Your task to perform on an android device: turn on notifications settings in the gmail app Image 0: 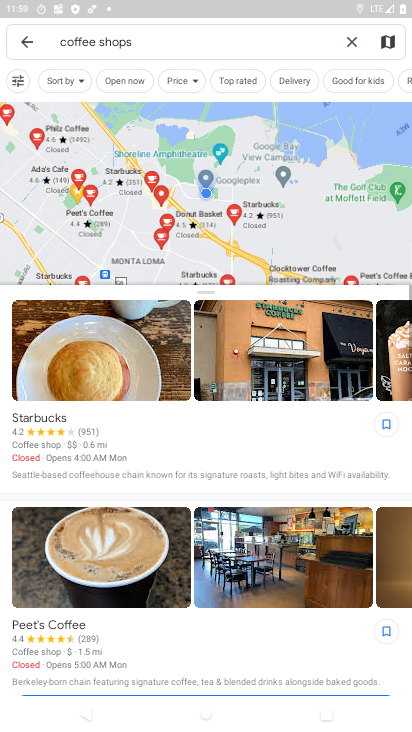
Step 0: press home button
Your task to perform on an android device: turn on notifications settings in the gmail app Image 1: 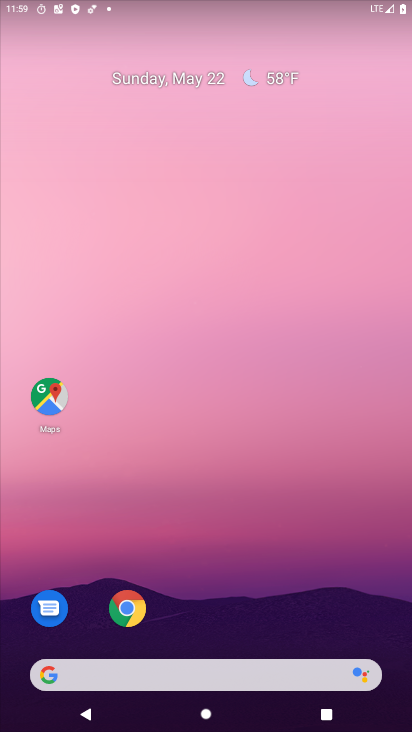
Step 1: drag from (247, 629) to (199, 51)
Your task to perform on an android device: turn on notifications settings in the gmail app Image 2: 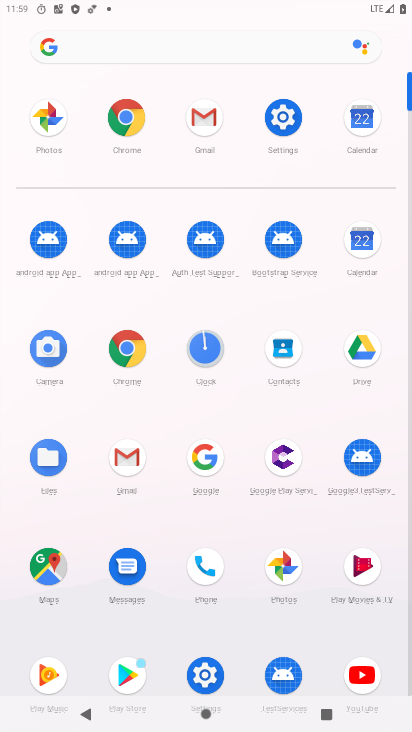
Step 2: click (200, 120)
Your task to perform on an android device: turn on notifications settings in the gmail app Image 3: 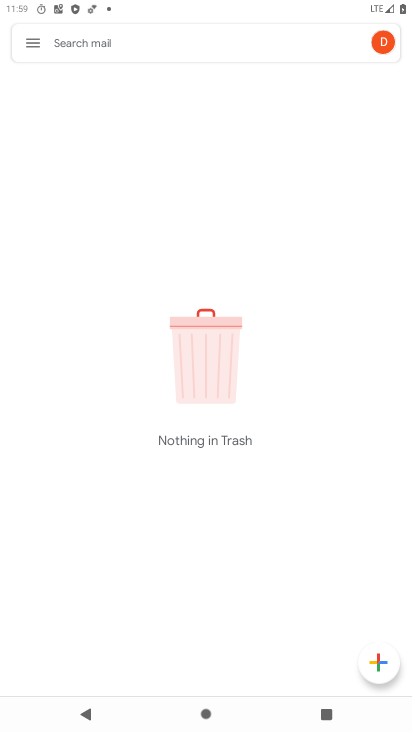
Step 3: click (43, 49)
Your task to perform on an android device: turn on notifications settings in the gmail app Image 4: 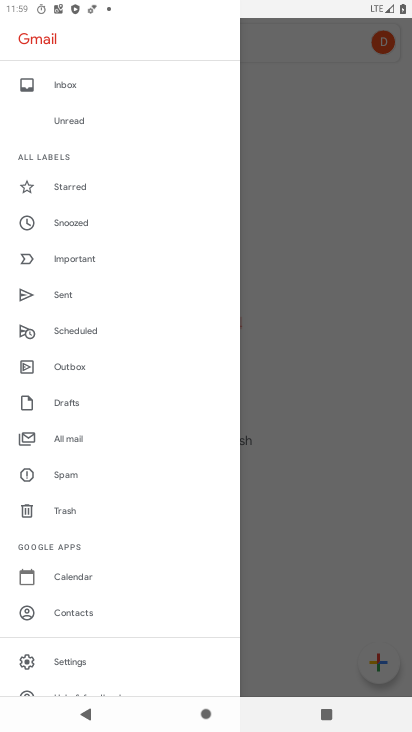
Step 4: click (183, 666)
Your task to perform on an android device: turn on notifications settings in the gmail app Image 5: 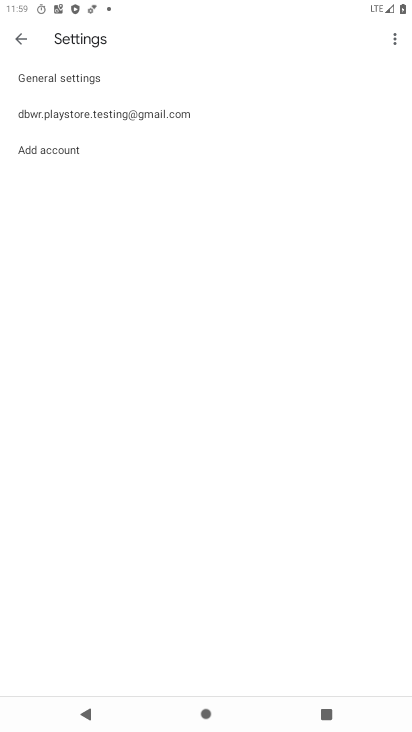
Step 5: click (138, 109)
Your task to perform on an android device: turn on notifications settings in the gmail app Image 6: 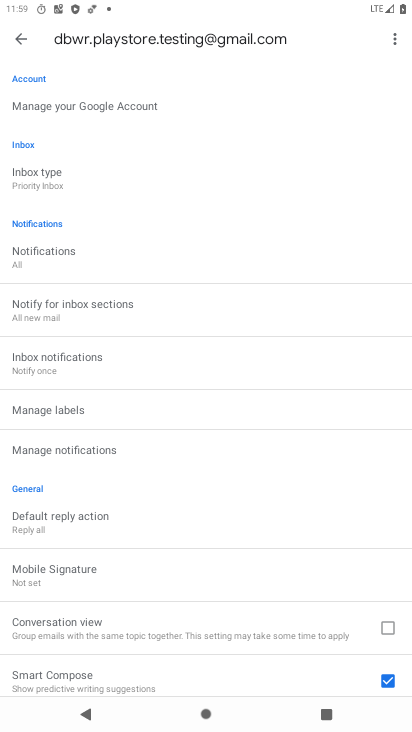
Step 6: click (264, 451)
Your task to perform on an android device: turn on notifications settings in the gmail app Image 7: 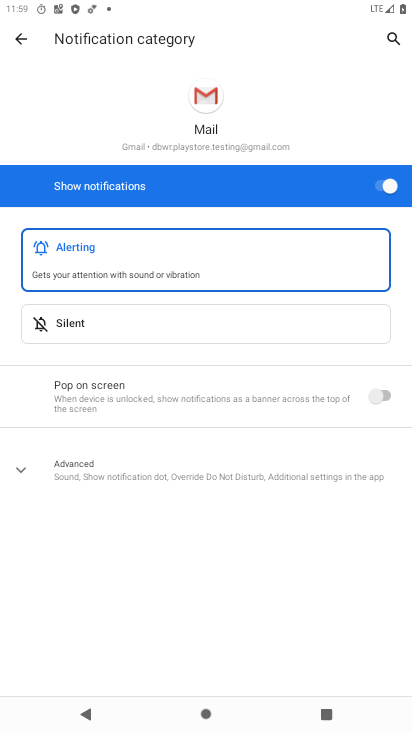
Step 7: task complete